Your task to perform on an android device: turn off sleep mode Image 0: 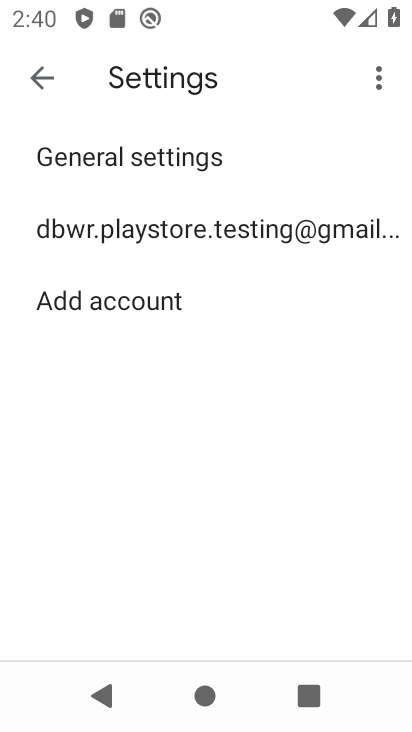
Step 0: press home button
Your task to perform on an android device: turn off sleep mode Image 1: 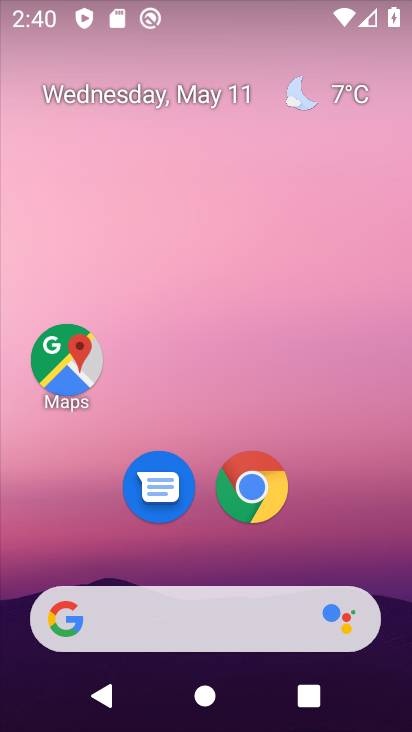
Step 1: drag from (298, 599) to (333, 161)
Your task to perform on an android device: turn off sleep mode Image 2: 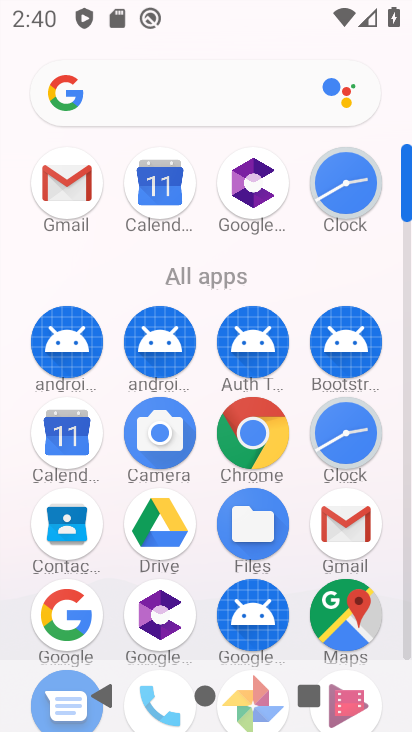
Step 2: drag from (294, 619) to (298, 173)
Your task to perform on an android device: turn off sleep mode Image 3: 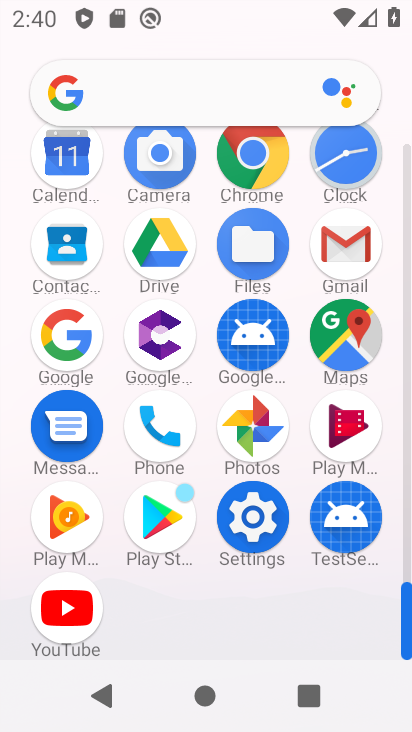
Step 3: click (268, 529)
Your task to perform on an android device: turn off sleep mode Image 4: 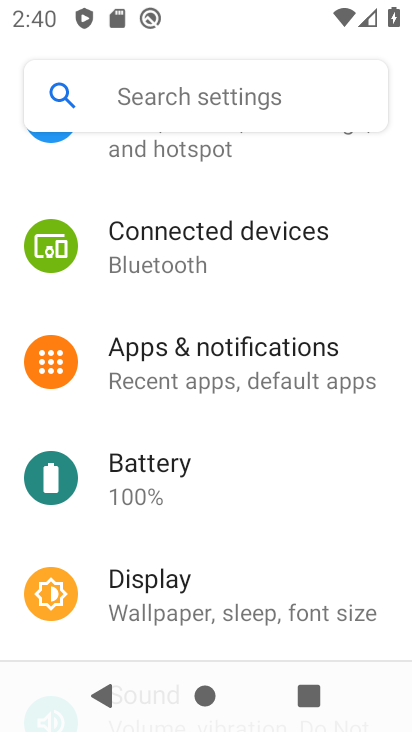
Step 4: drag from (284, 227) to (331, 99)
Your task to perform on an android device: turn off sleep mode Image 5: 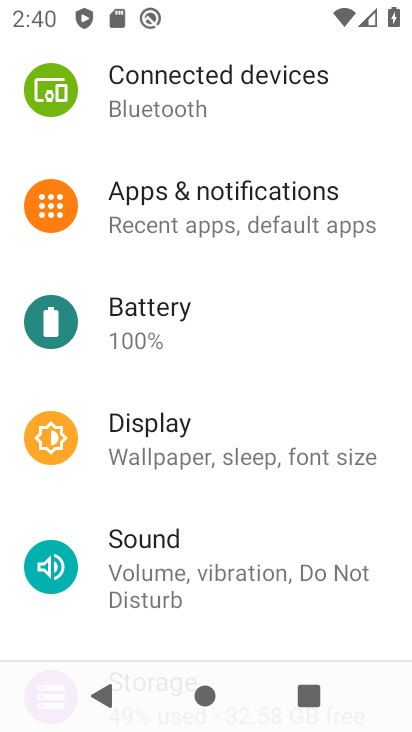
Step 5: click (216, 451)
Your task to perform on an android device: turn off sleep mode Image 6: 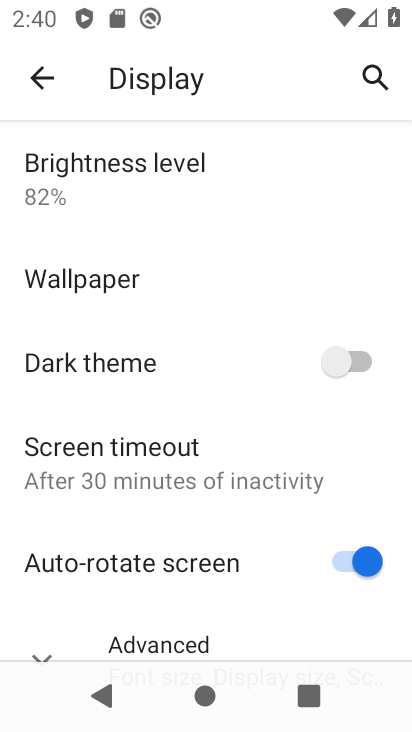
Step 6: task complete